Your task to perform on an android device: choose inbox layout in the gmail app Image 0: 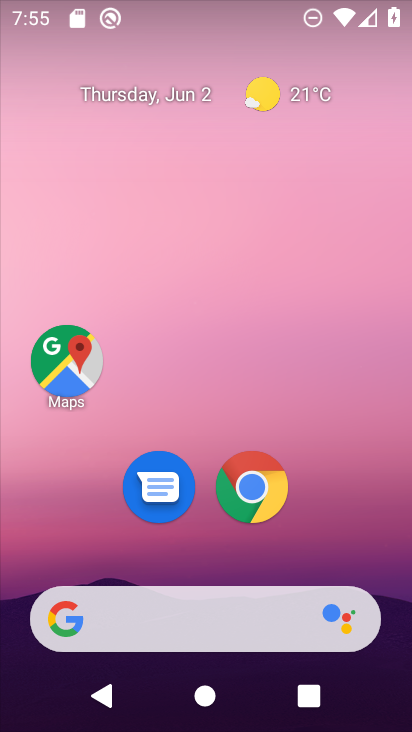
Step 0: drag from (162, 539) to (188, 95)
Your task to perform on an android device: choose inbox layout in the gmail app Image 1: 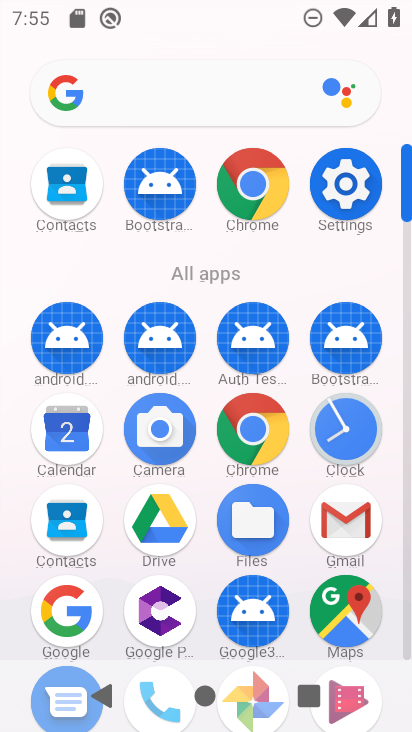
Step 1: click (350, 511)
Your task to perform on an android device: choose inbox layout in the gmail app Image 2: 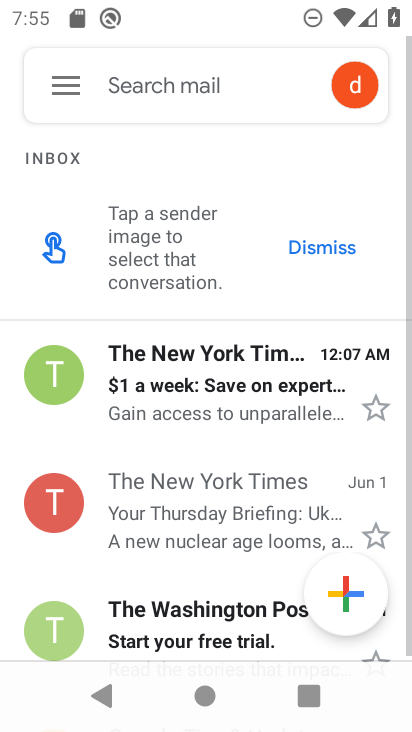
Step 2: click (61, 92)
Your task to perform on an android device: choose inbox layout in the gmail app Image 3: 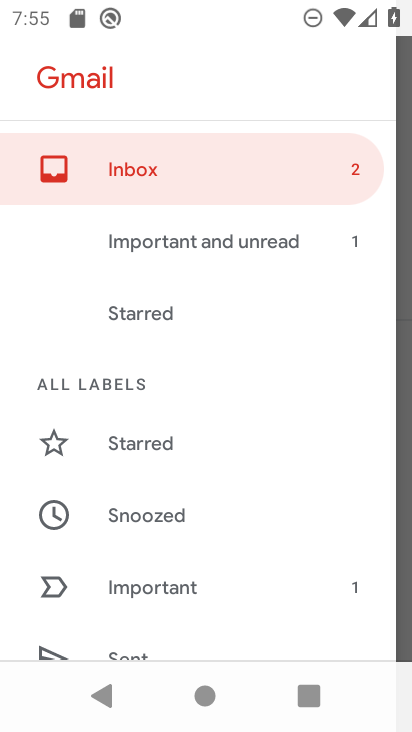
Step 3: drag from (171, 610) to (221, 242)
Your task to perform on an android device: choose inbox layout in the gmail app Image 4: 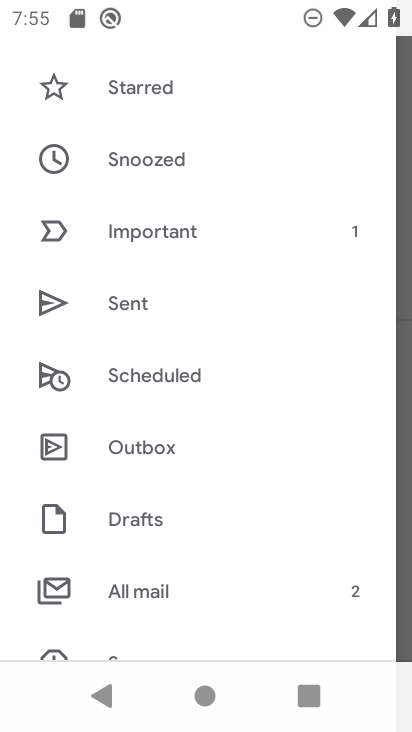
Step 4: drag from (181, 623) to (191, 297)
Your task to perform on an android device: choose inbox layout in the gmail app Image 5: 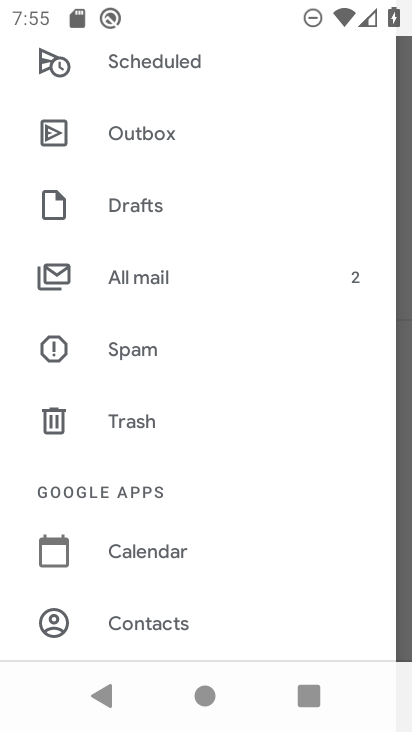
Step 5: drag from (162, 615) to (185, 249)
Your task to perform on an android device: choose inbox layout in the gmail app Image 6: 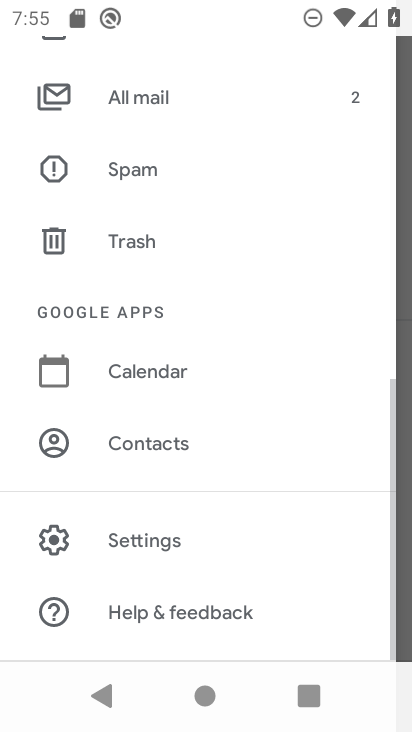
Step 6: click (147, 544)
Your task to perform on an android device: choose inbox layout in the gmail app Image 7: 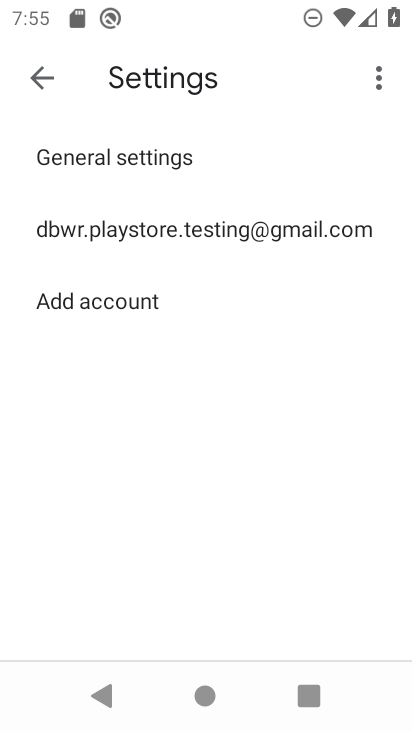
Step 7: click (96, 224)
Your task to perform on an android device: choose inbox layout in the gmail app Image 8: 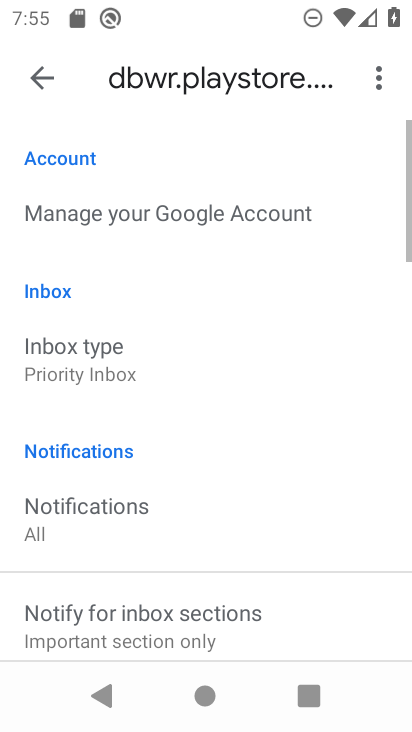
Step 8: click (63, 343)
Your task to perform on an android device: choose inbox layout in the gmail app Image 9: 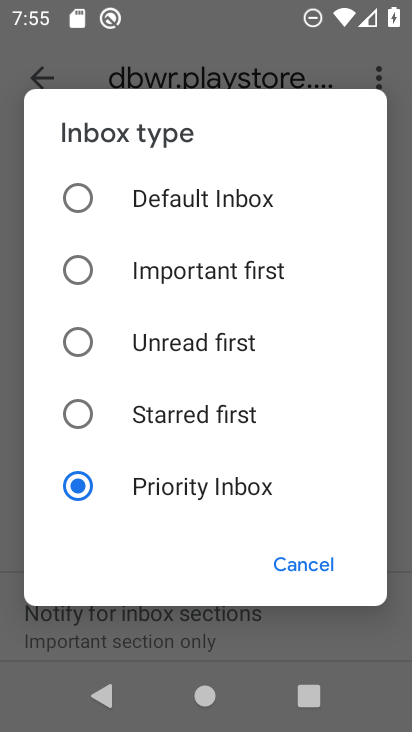
Step 9: click (82, 192)
Your task to perform on an android device: choose inbox layout in the gmail app Image 10: 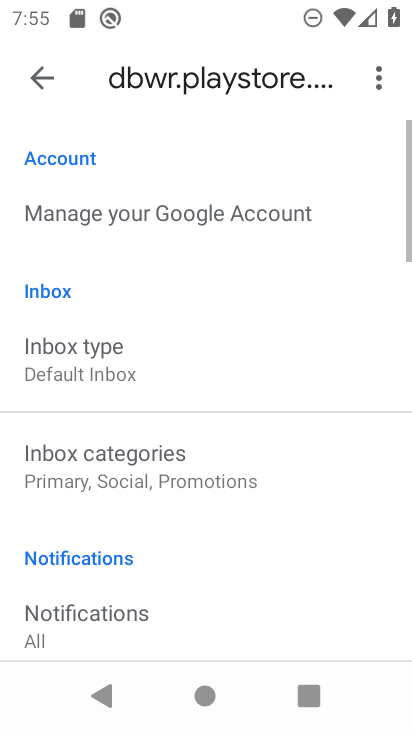
Step 10: task complete